Your task to perform on an android device: make emails show in primary in the gmail app Image 0: 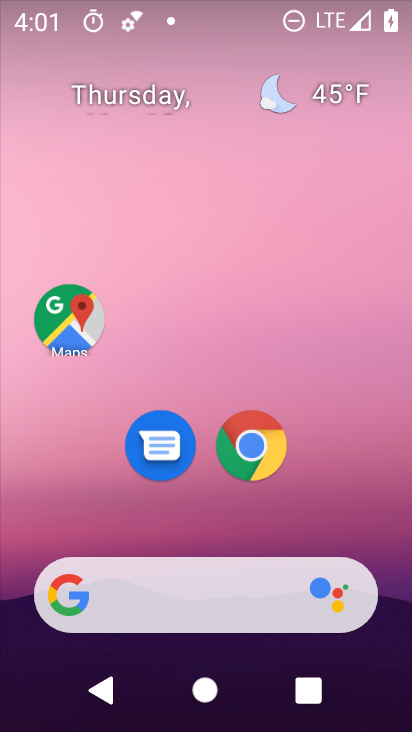
Step 0: drag from (305, 496) to (293, 210)
Your task to perform on an android device: make emails show in primary in the gmail app Image 1: 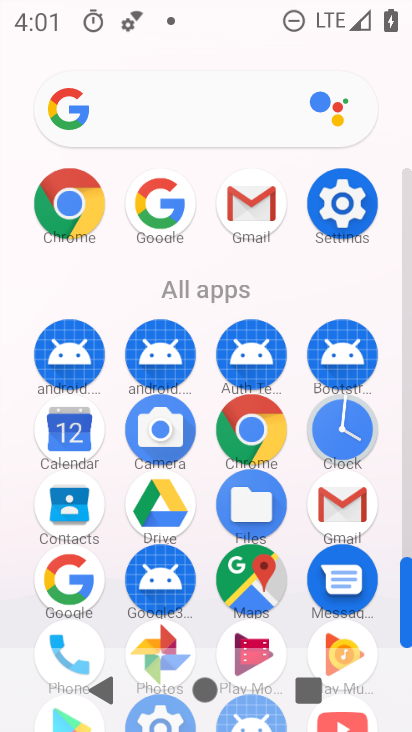
Step 1: click (249, 196)
Your task to perform on an android device: make emails show in primary in the gmail app Image 2: 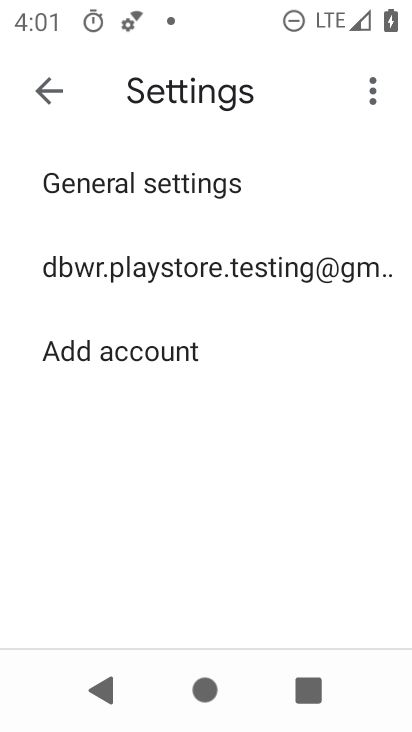
Step 2: click (176, 268)
Your task to perform on an android device: make emails show in primary in the gmail app Image 3: 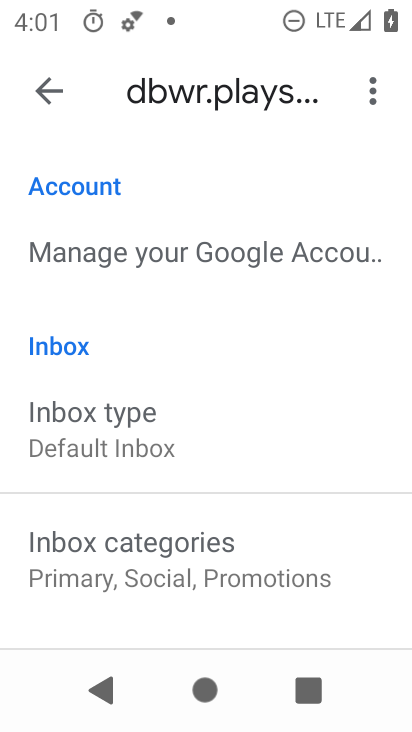
Step 3: drag from (207, 449) to (231, 326)
Your task to perform on an android device: make emails show in primary in the gmail app Image 4: 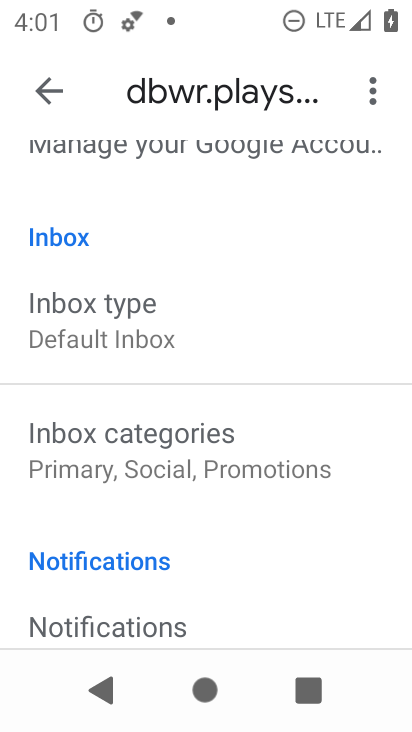
Step 4: click (162, 451)
Your task to perform on an android device: make emails show in primary in the gmail app Image 5: 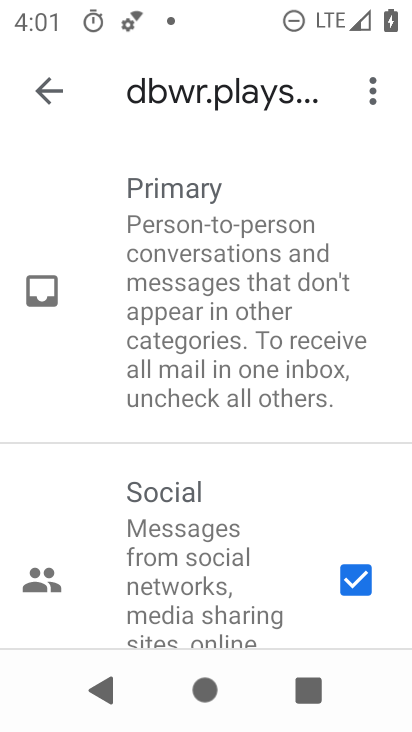
Step 5: click (360, 575)
Your task to perform on an android device: make emails show in primary in the gmail app Image 6: 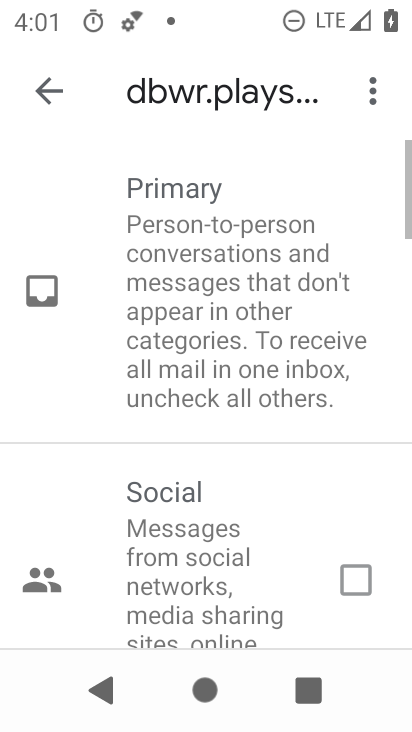
Step 6: drag from (297, 516) to (360, 230)
Your task to perform on an android device: make emails show in primary in the gmail app Image 7: 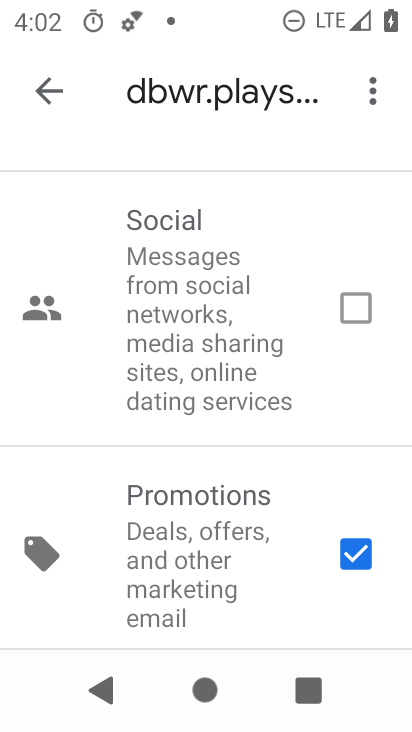
Step 7: click (358, 545)
Your task to perform on an android device: make emails show in primary in the gmail app Image 8: 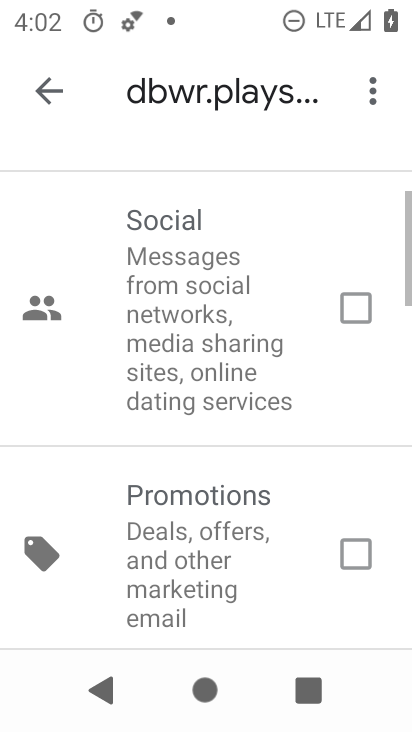
Step 8: task complete